Your task to perform on an android device: see creations saved in the google photos Image 0: 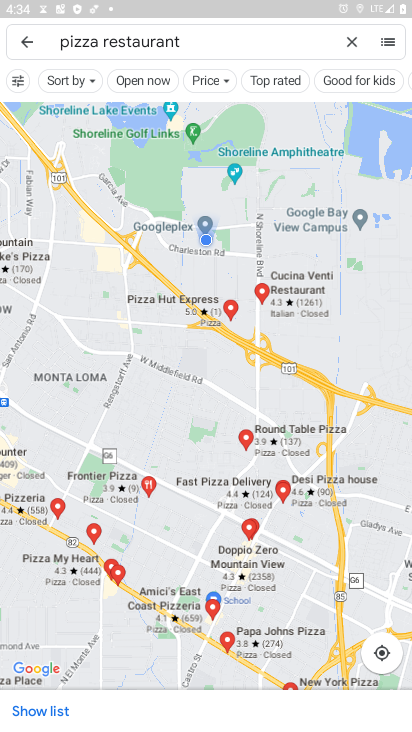
Step 0: click (346, 619)
Your task to perform on an android device: see creations saved in the google photos Image 1: 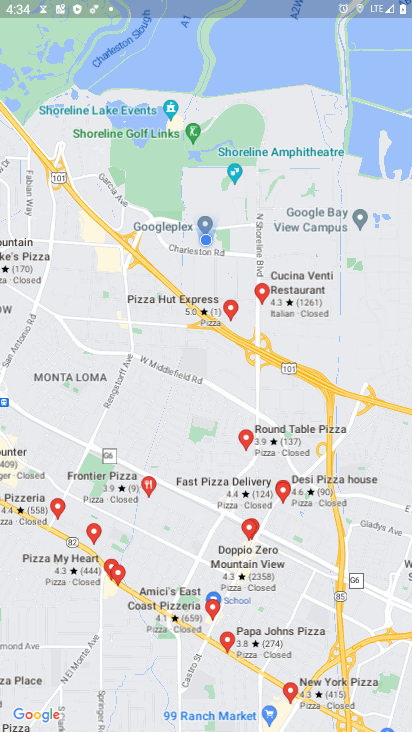
Step 1: press home button
Your task to perform on an android device: see creations saved in the google photos Image 2: 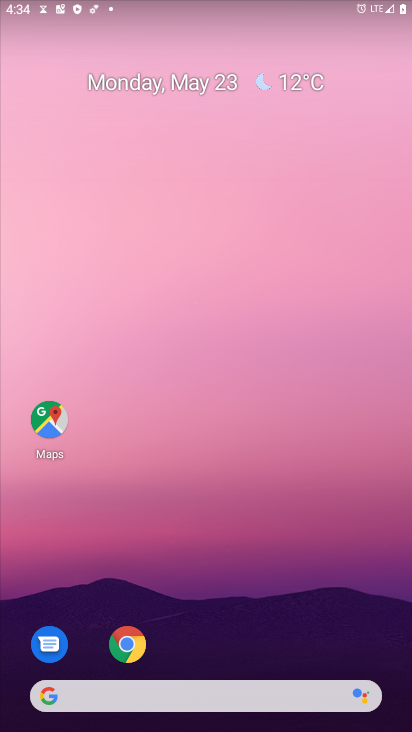
Step 2: drag from (234, 642) to (160, 13)
Your task to perform on an android device: see creations saved in the google photos Image 3: 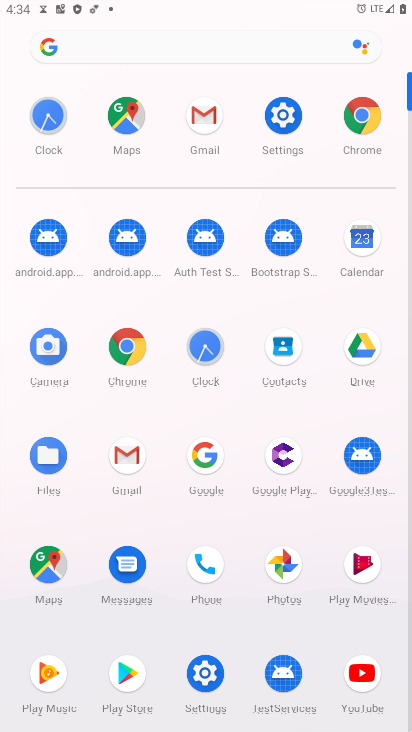
Step 3: click (269, 559)
Your task to perform on an android device: see creations saved in the google photos Image 4: 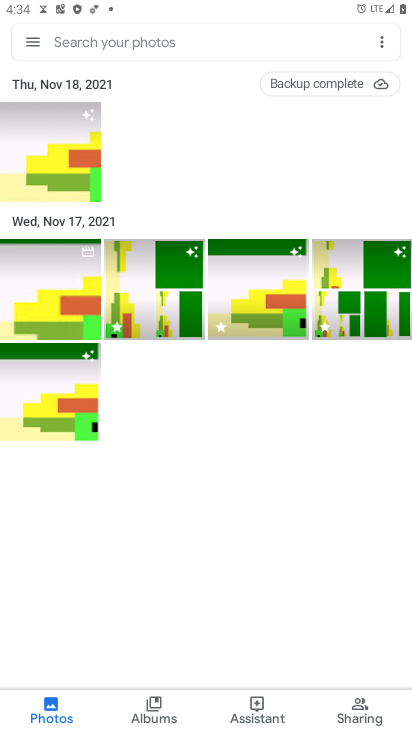
Step 4: click (142, 49)
Your task to perform on an android device: see creations saved in the google photos Image 5: 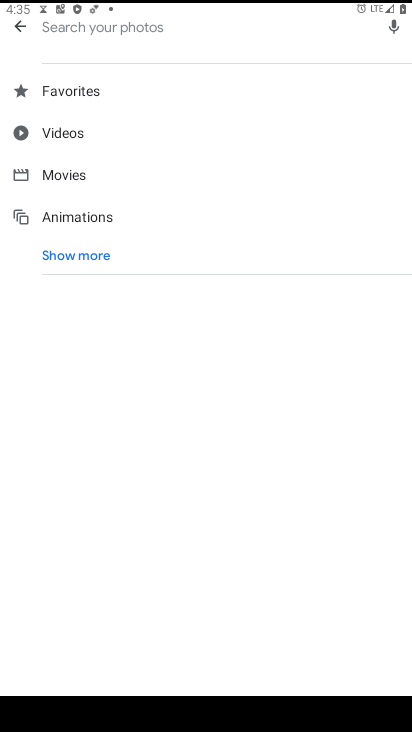
Step 5: click (75, 248)
Your task to perform on an android device: see creations saved in the google photos Image 6: 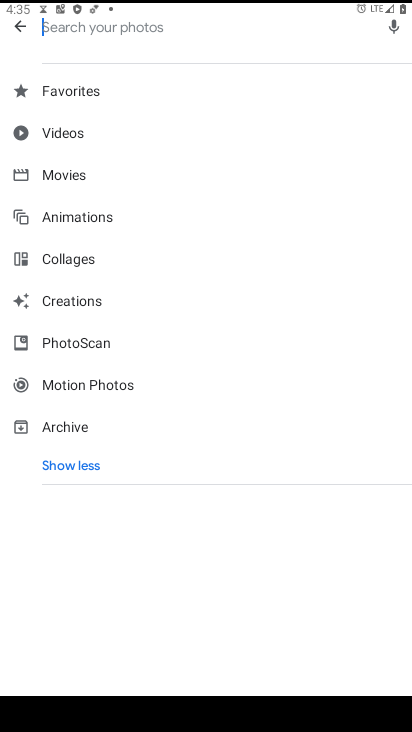
Step 6: click (86, 291)
Your task to perform on an android device: see creations saved in the google photos Image 7: 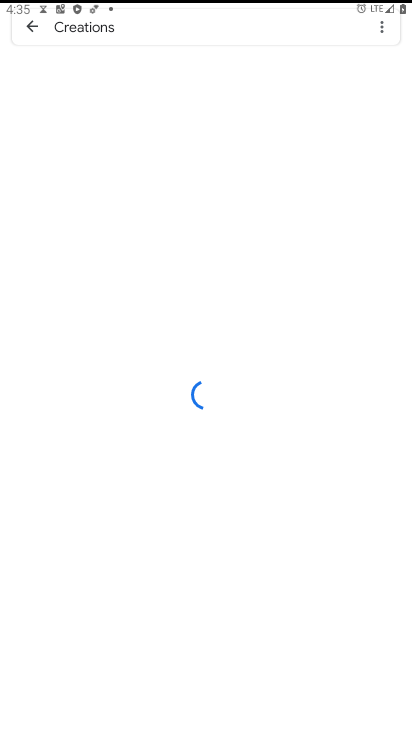
Step 7: task complete